Your task to perform on an android device: What's the news in Jamaica? Image 0: 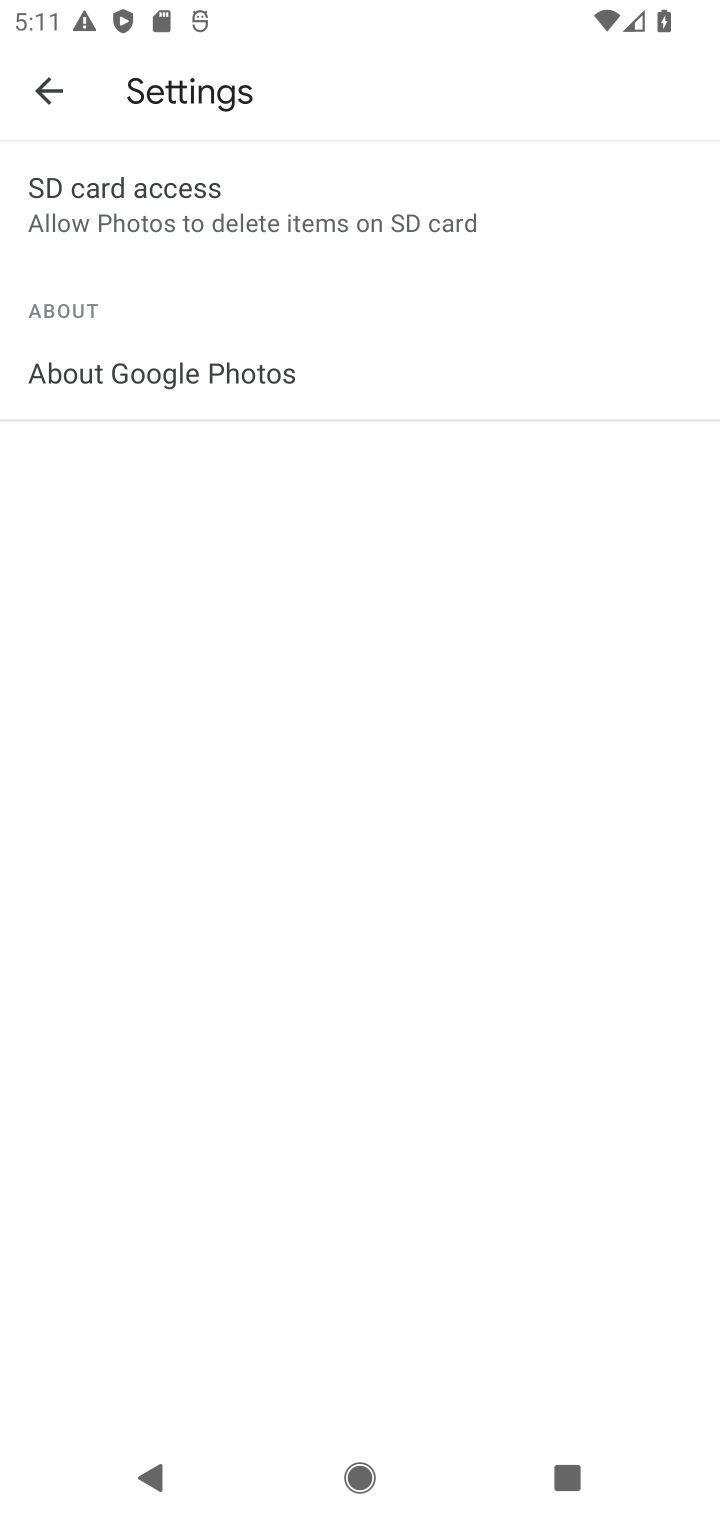
Step 0: press home button
Your task to perform on an android device: What's the news in Jamaica? Image 1: 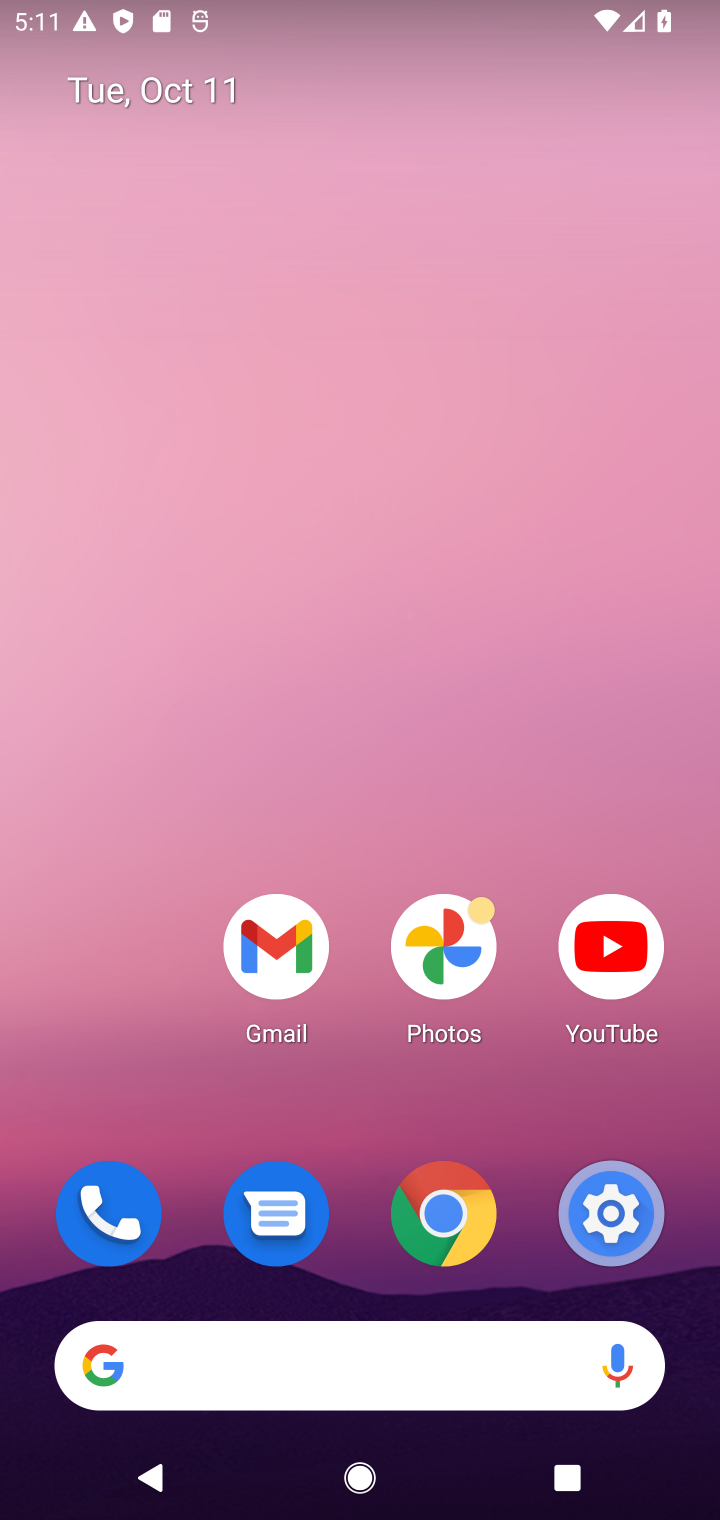
Step 1: drag from (373, 1320) to (230, 166)
Your task to perform on an android device: What's the news in Jamaica? Image 2: 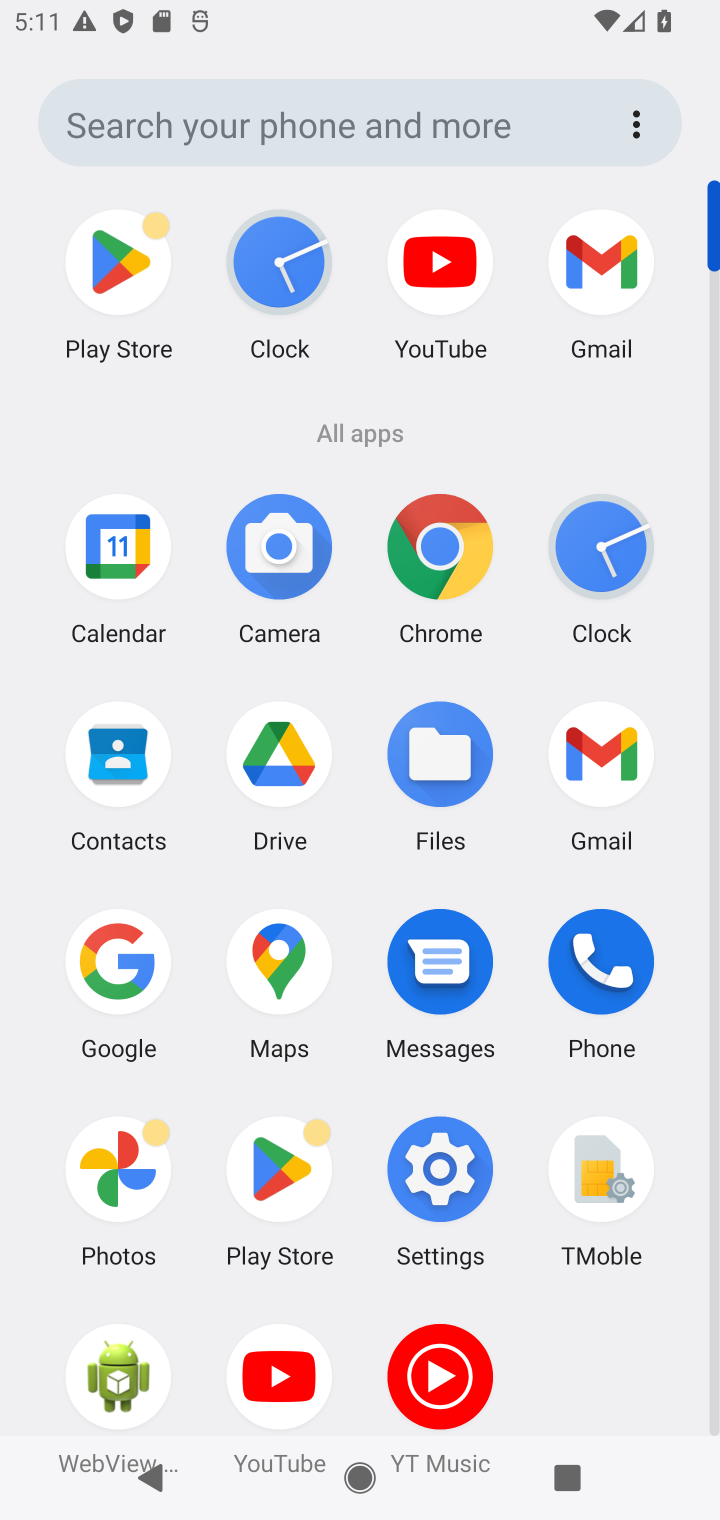
Step 2: click (131, 958)
Your task to perform on an android device: What's the news in Jamaica? Image 3: 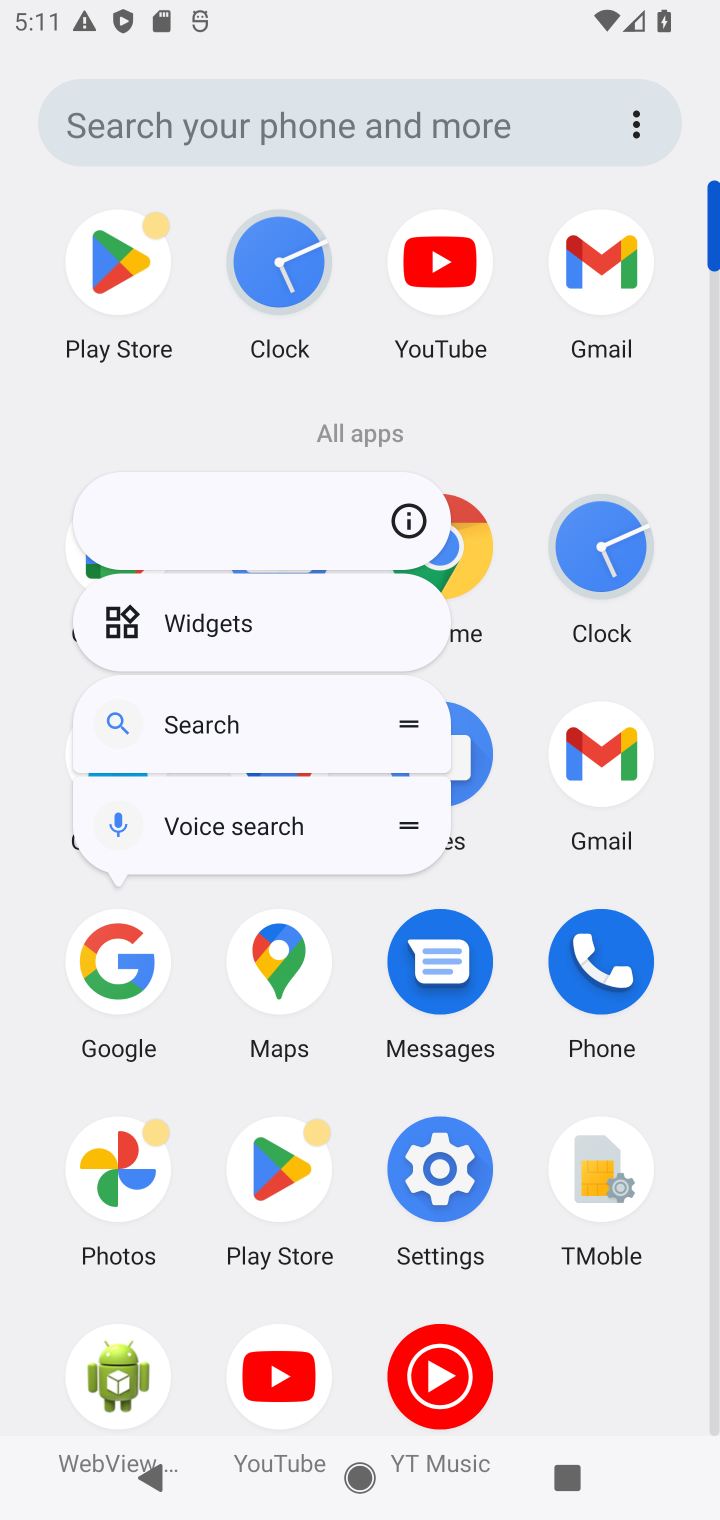
Step 3: click (123, 966)
Your task to perform on an android device: What's the news in Jamaica? Image 4: 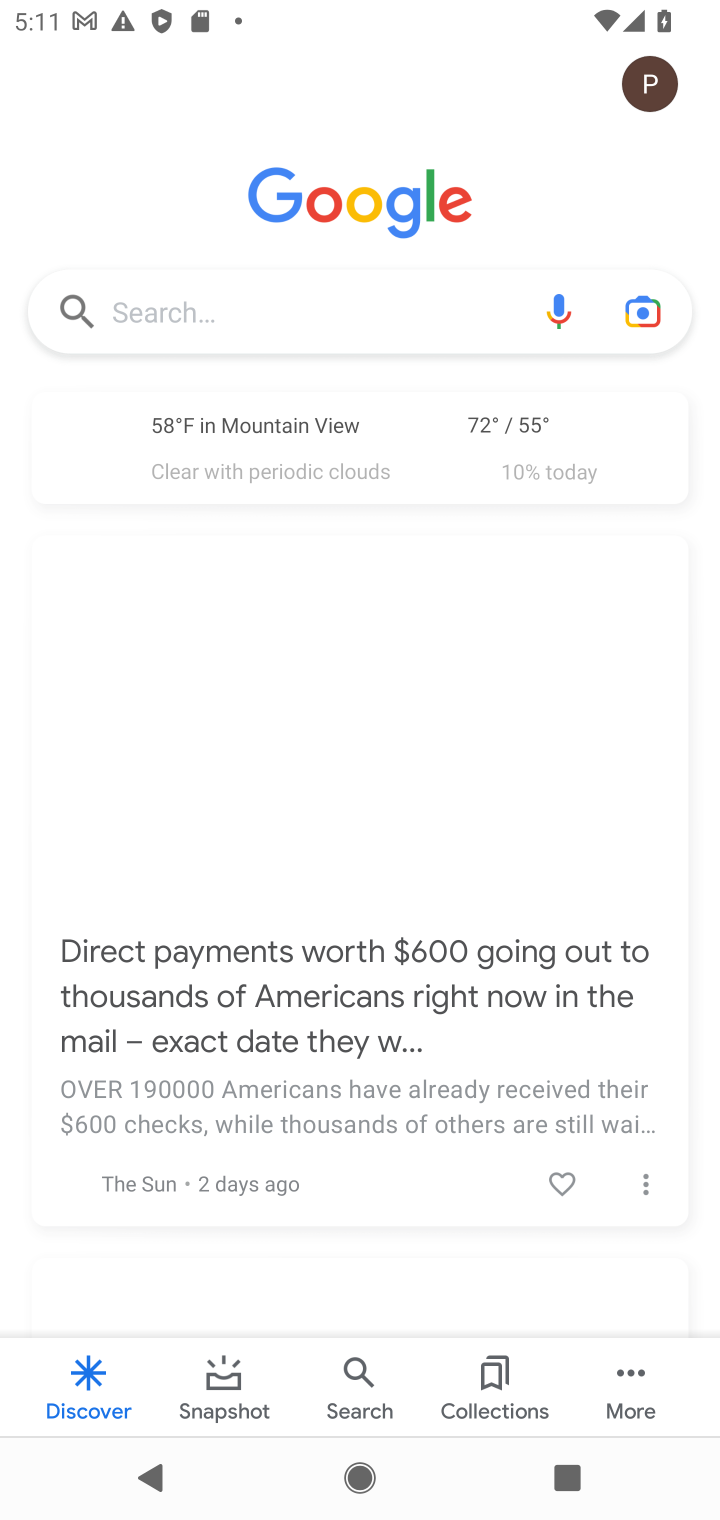
Step 4: click (202, 322)
Your task to perform on an android device: What's the news in Jamaica? Image 5: 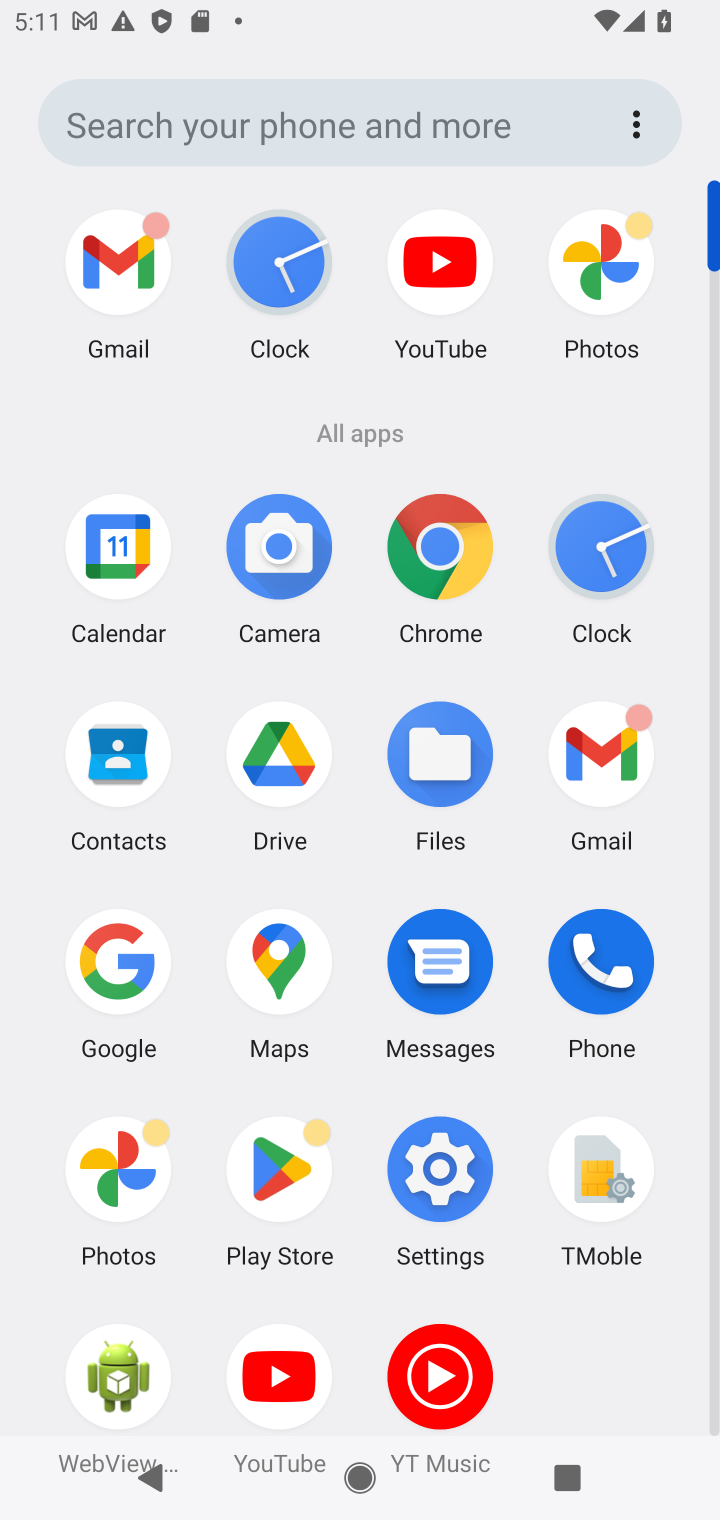
Step 5: type "What's the news in Jamaica?"
Your task to perform on an android device: What's the news in Jamaica? Image 6: 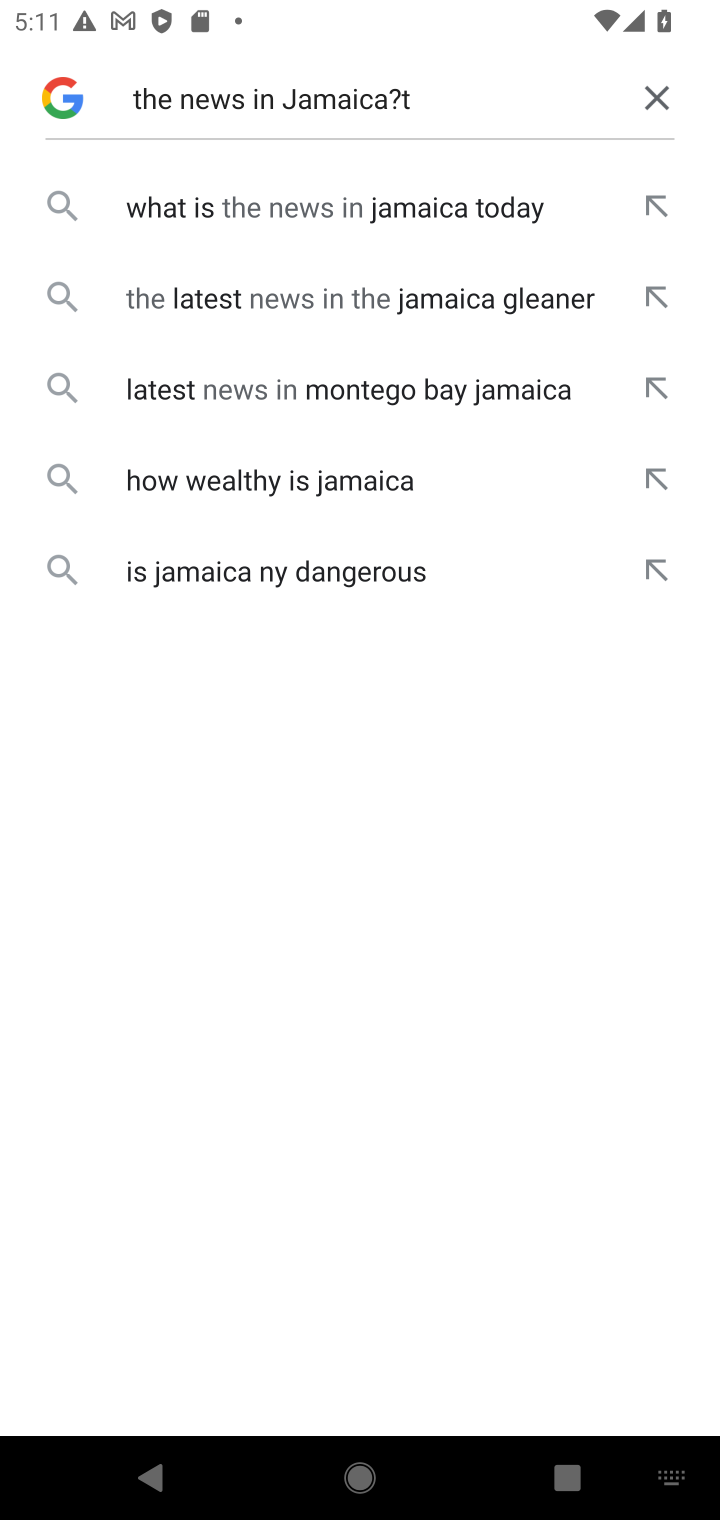
Step 6: click (388, 205)
Your task to perform on an android device: What's the news in Jamaica? Image 7: 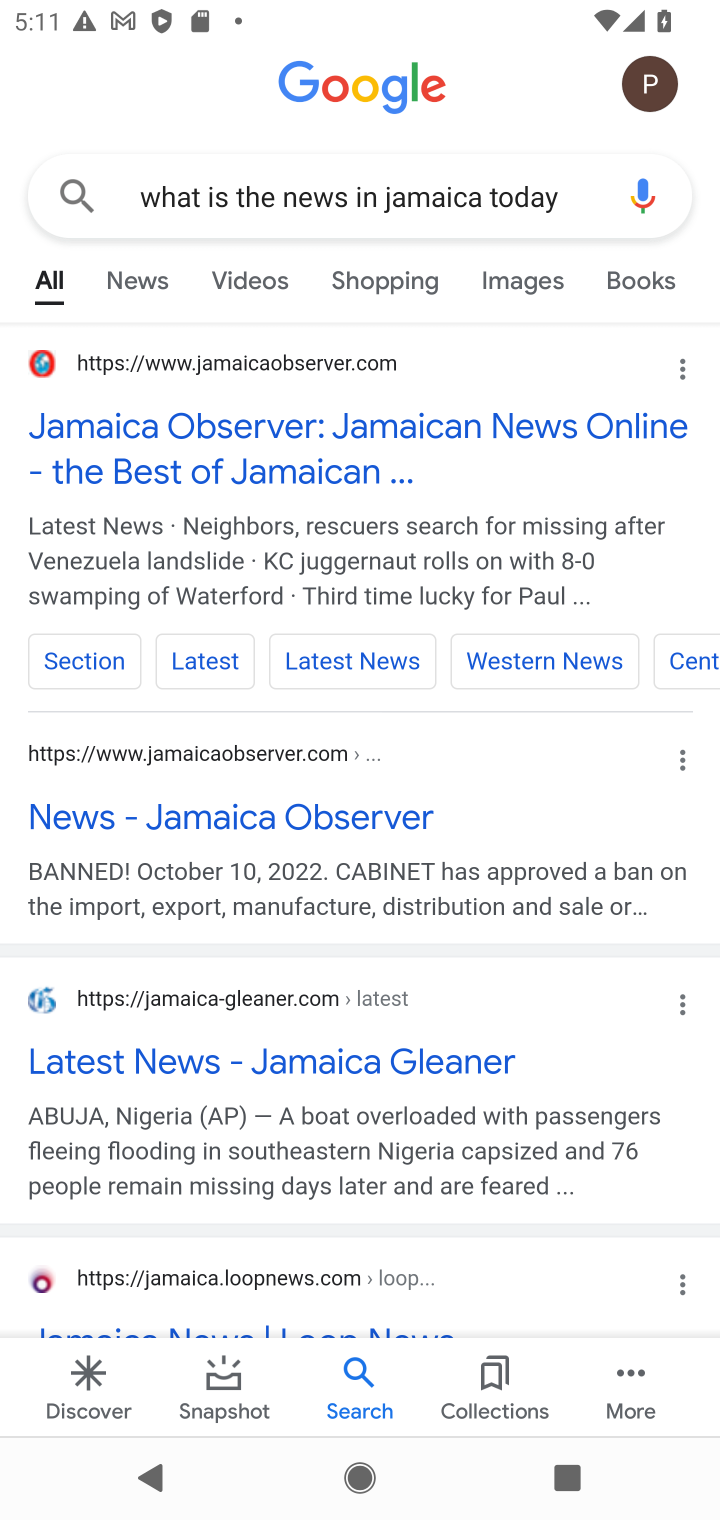
Step 7: click (199, 461)
Your task to perform on an android device: What's the news in Jamaica? Image 8: 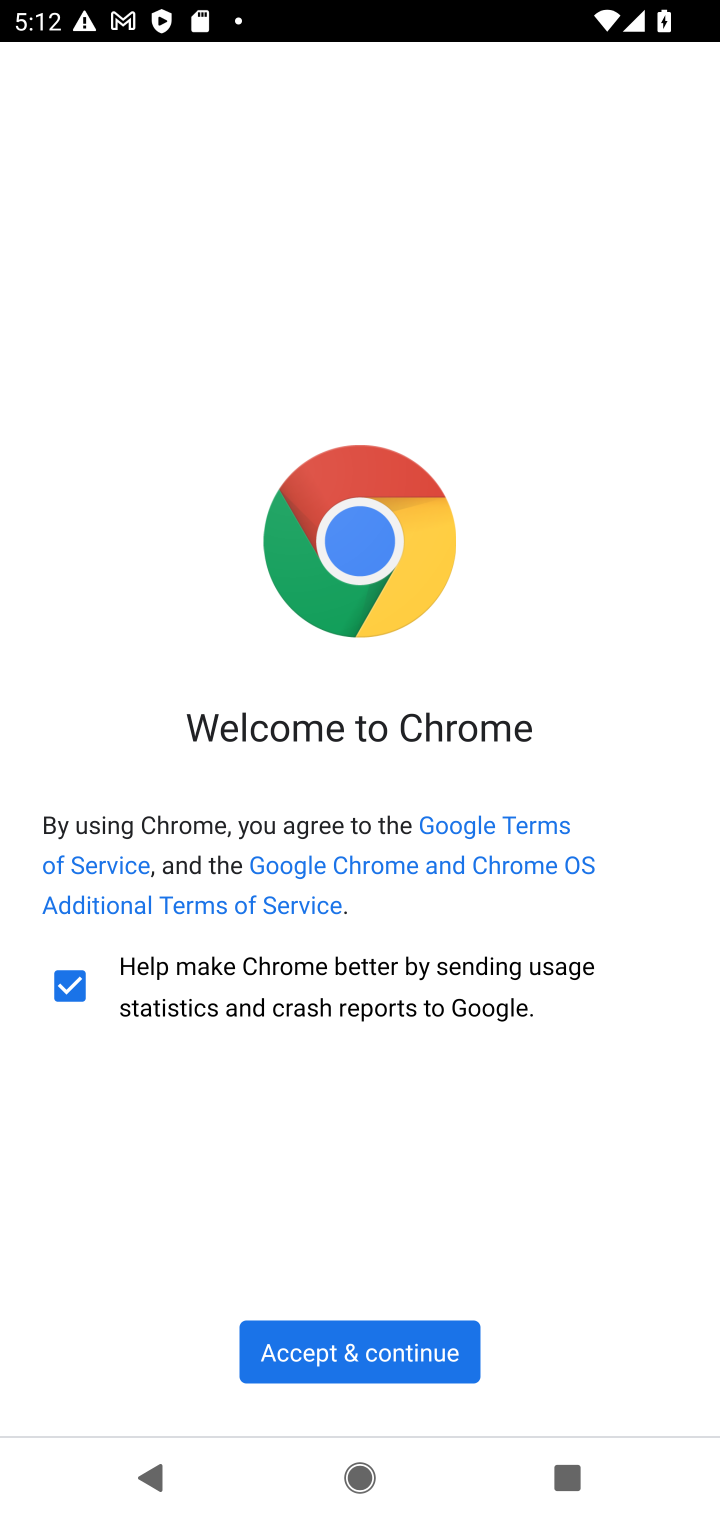
Step 8: click (367, 1364)
Your task to perform on an android device: What's the news in Jamaica? Image 9: 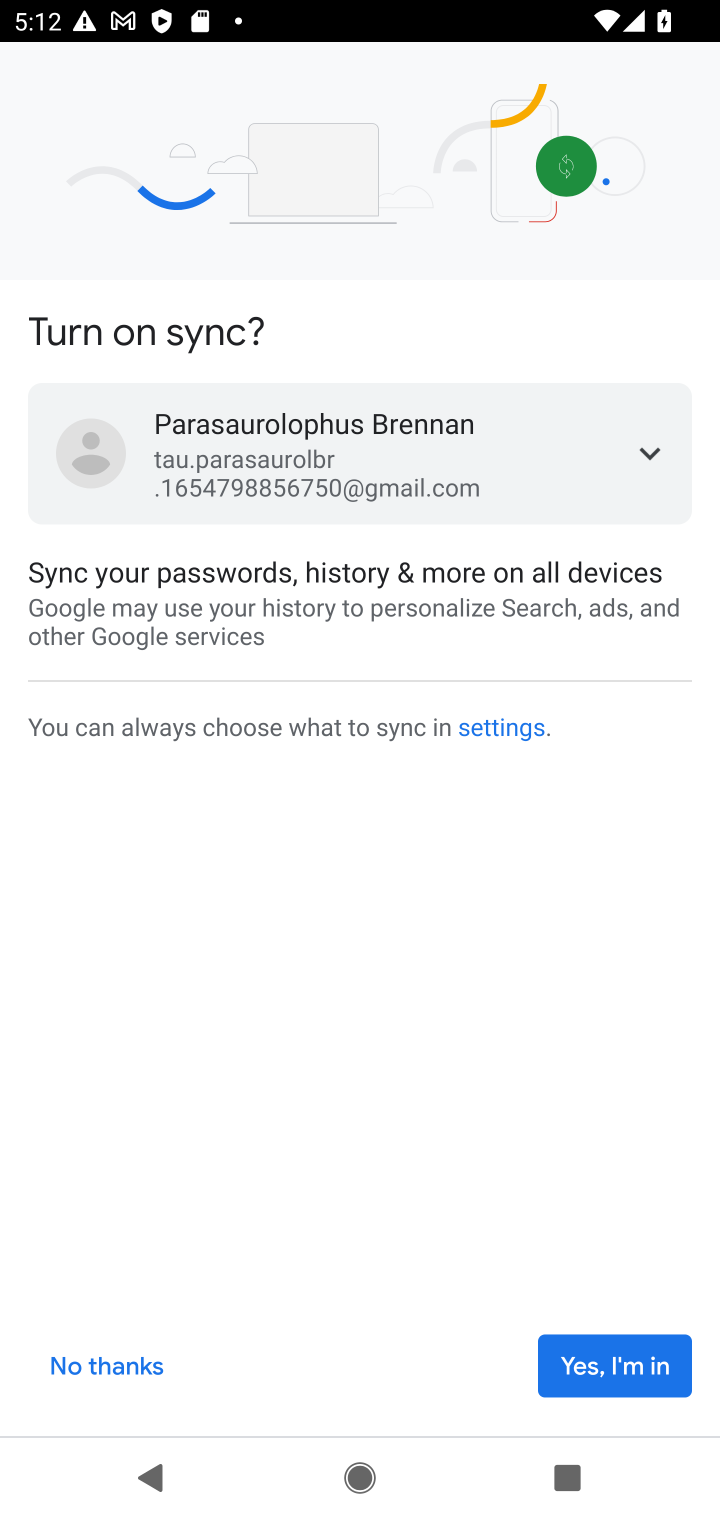
Step 9: click (623, 1346)
Your task to perform on an android device: What's the news in Jamaica? Image 10: 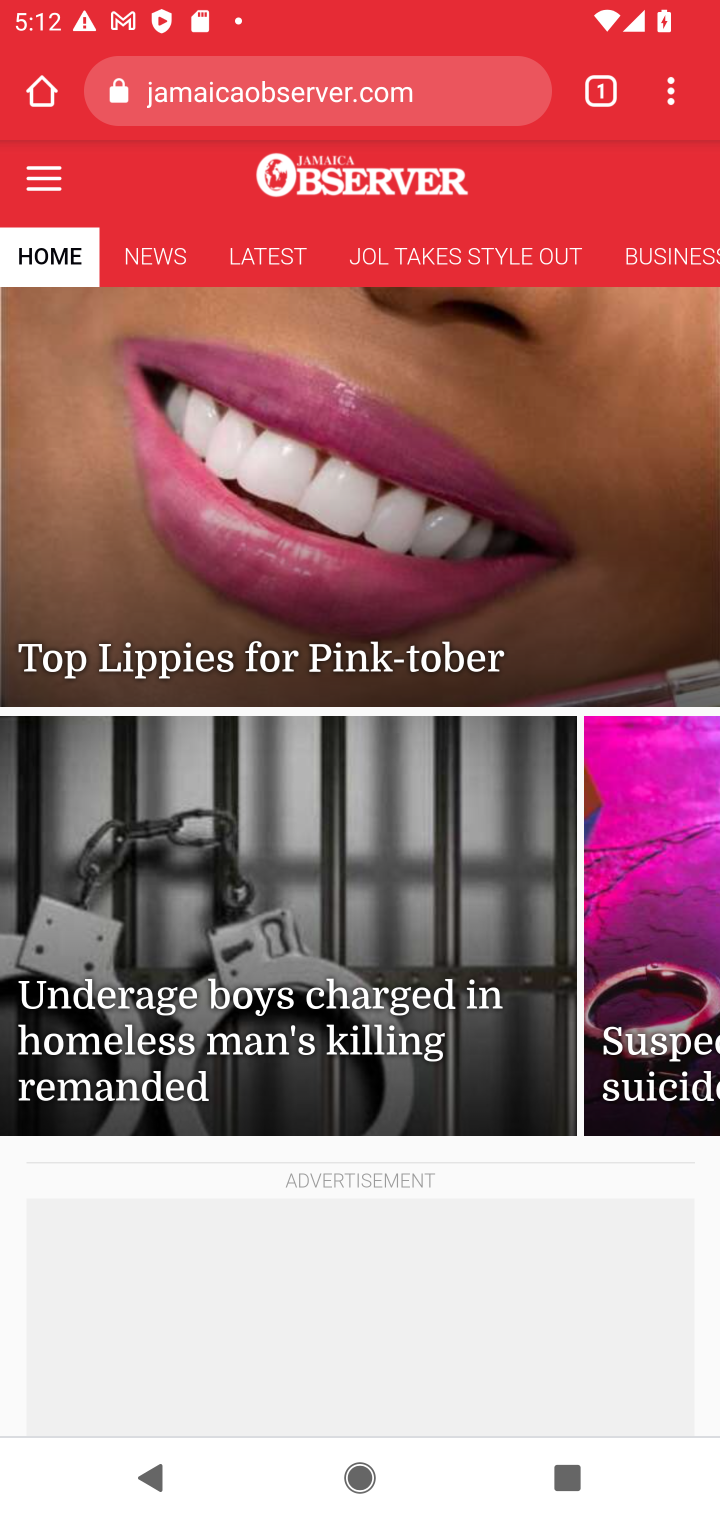
Step 10: task complete